Your task to perform on an android device: open app "The Home Depot" Image 0: 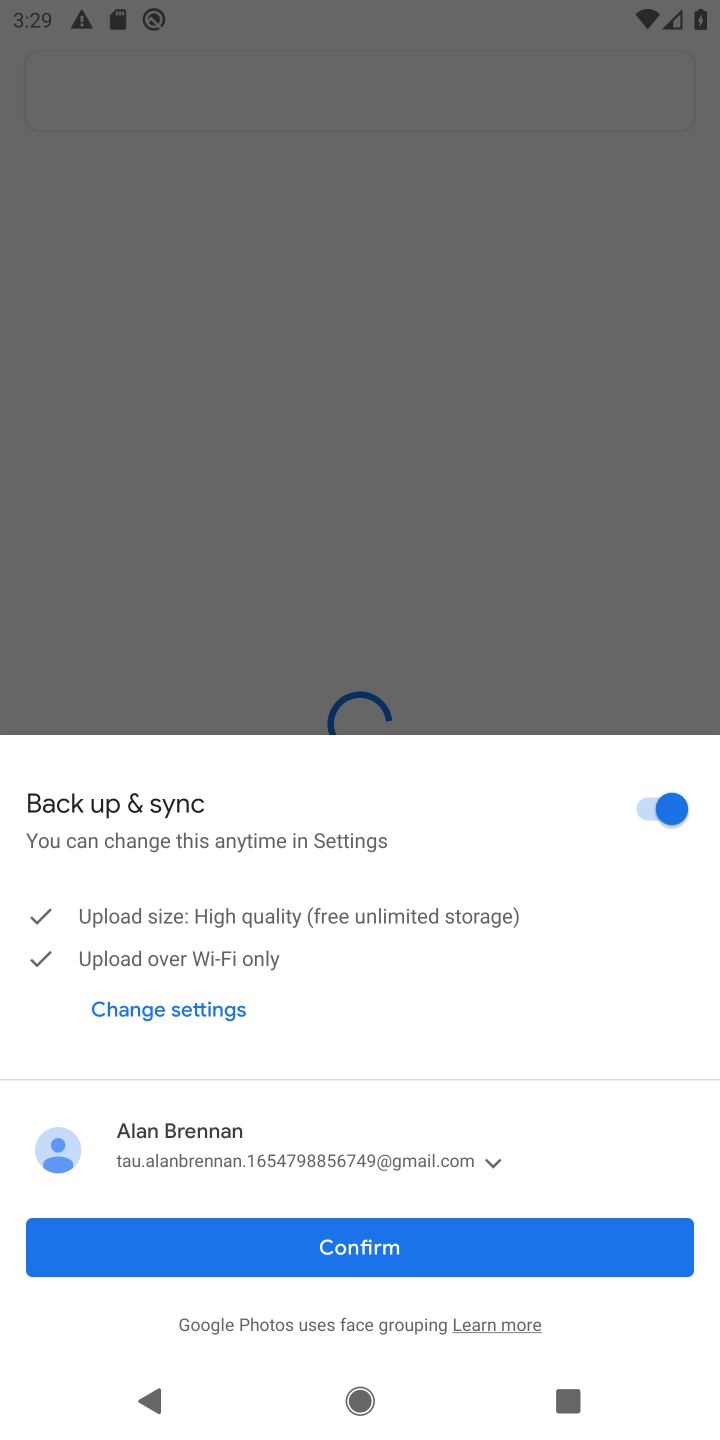
Step 0: press home button
Your task to perform on an android device: open app "The Home Depot" Image 1: 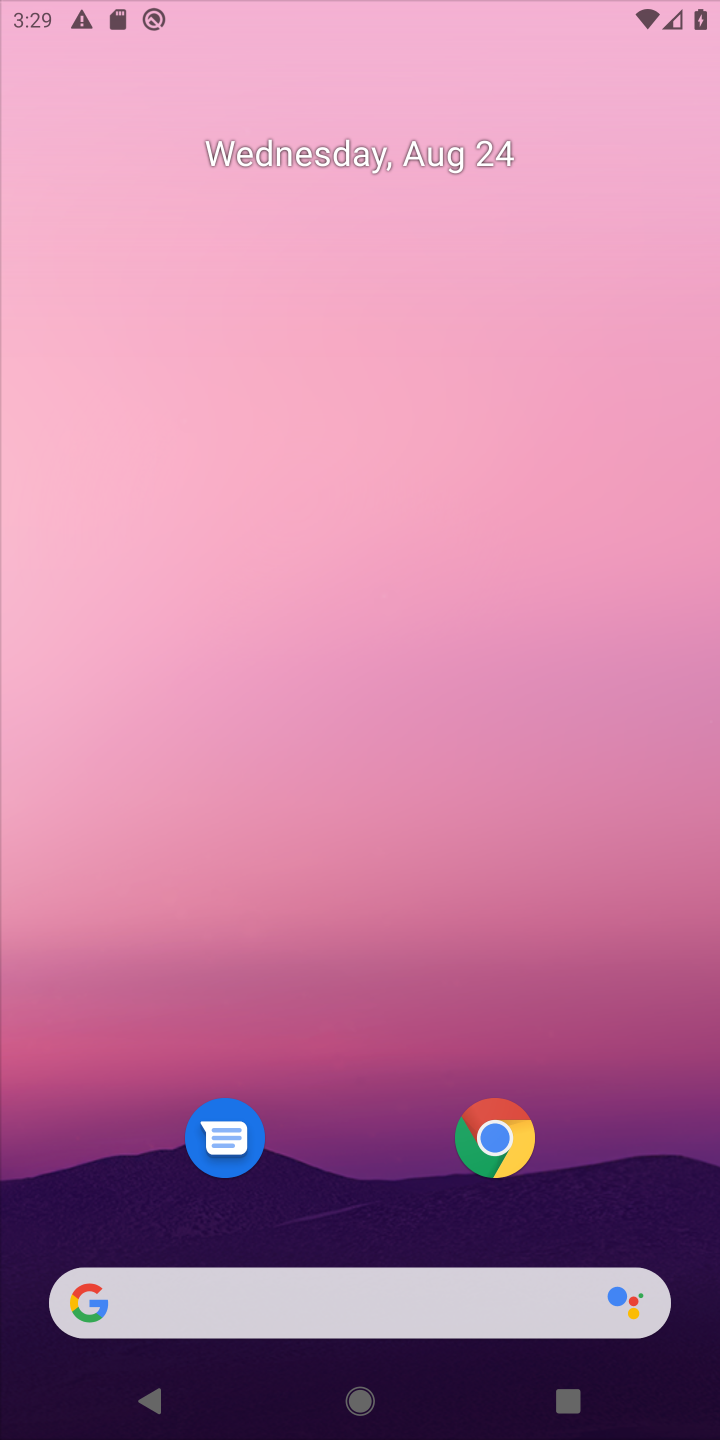
Step 1: press home button
Your task to perform on an android device: open app "The Home Depot" Image 2: 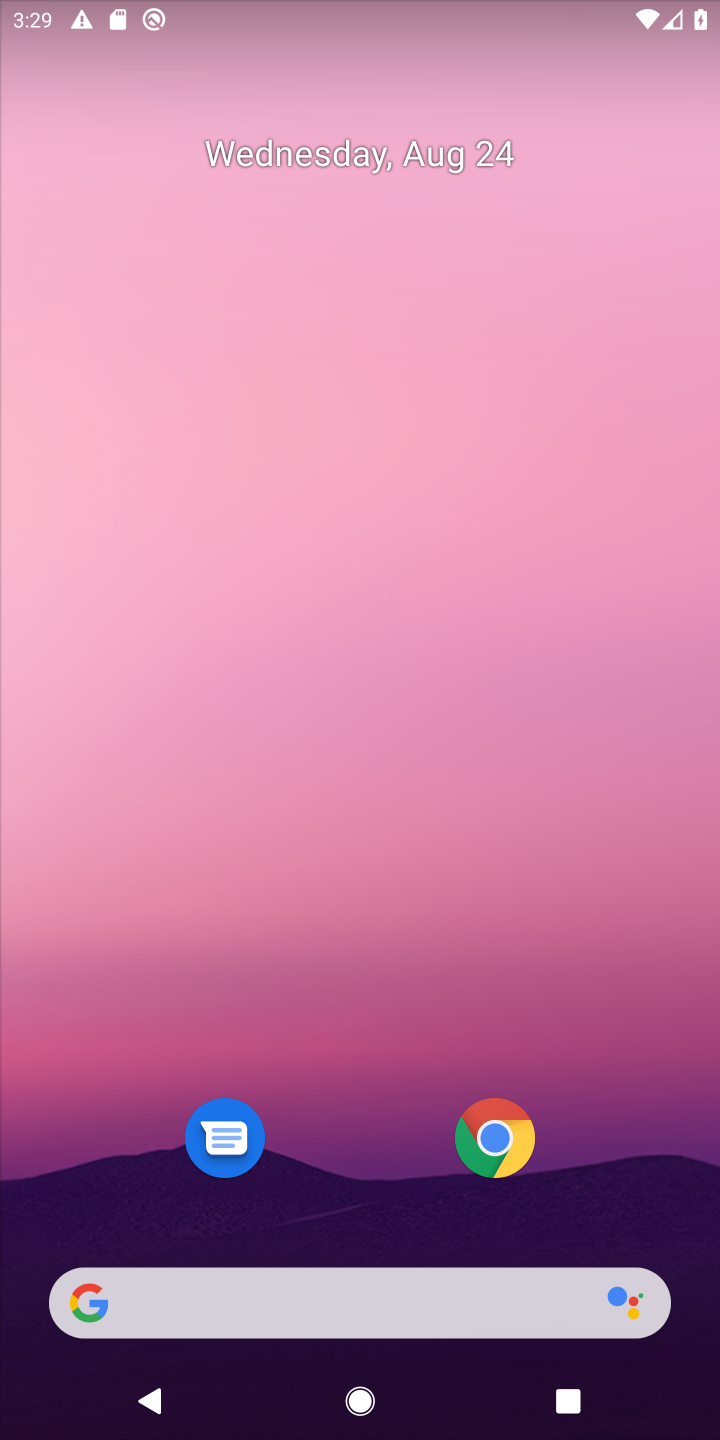
Step 2: drag from (361, 861) to (361, 106)
Your task to perform on an android device: open app "The Home Depot" Image 3: 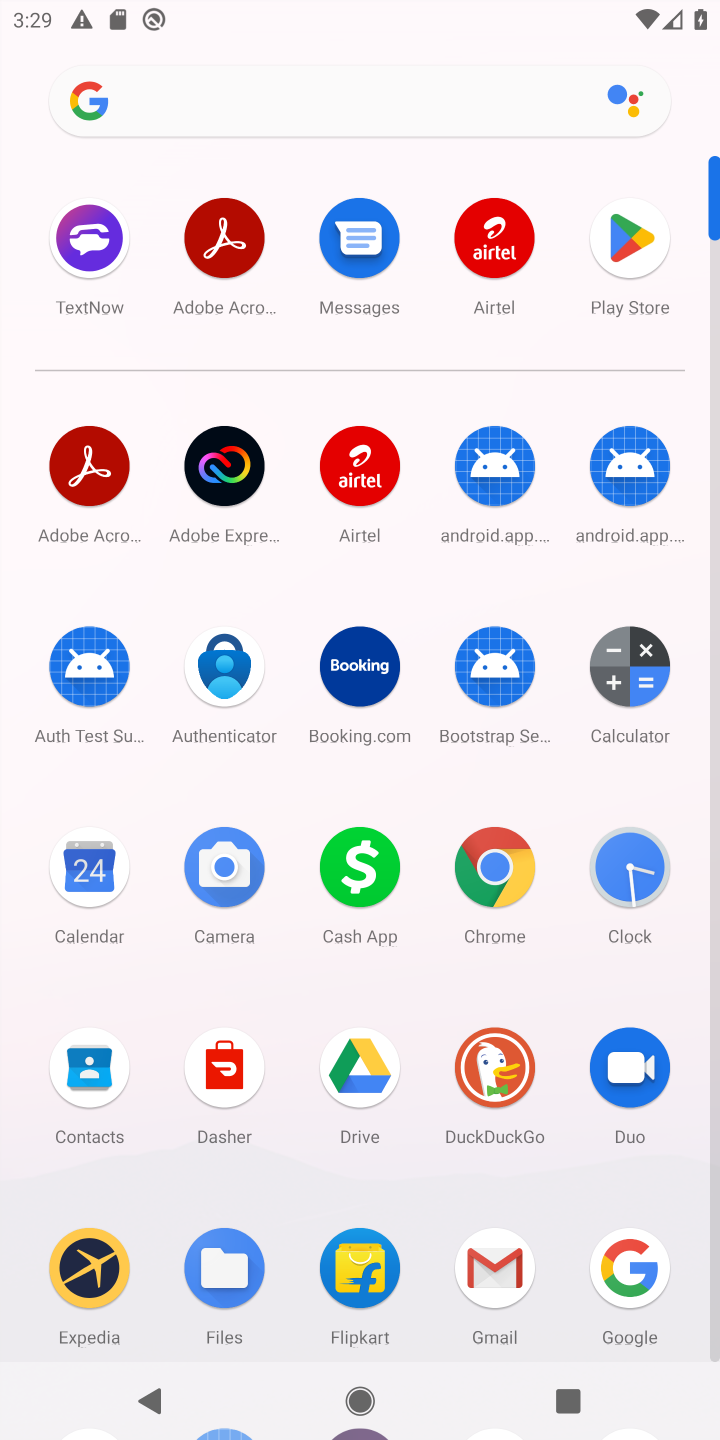
Step 3: click (626, 244)
Your task to perform on an android device: open app "The Home Depot" Image 4: 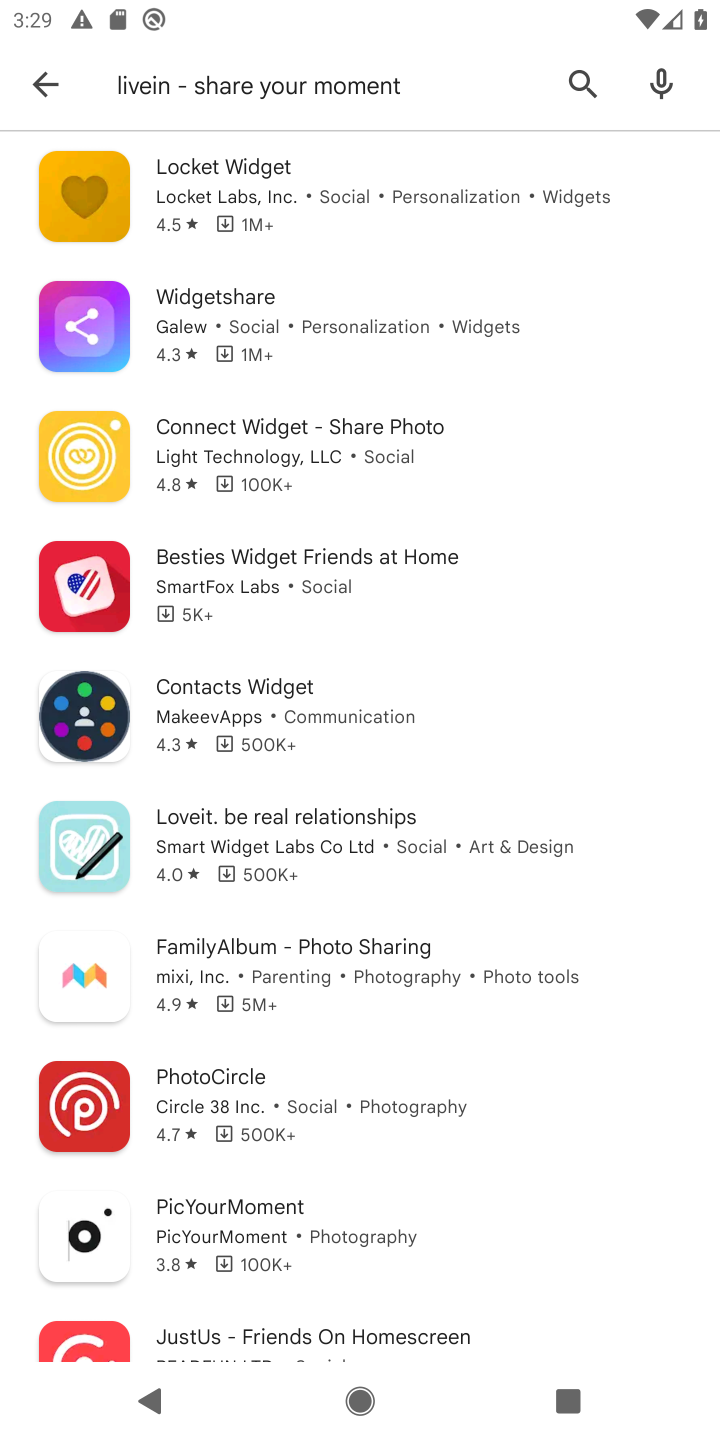
Step 4: click (577, 67)
Your task to perform on an android device: open app "The Home Depot" Image 5: 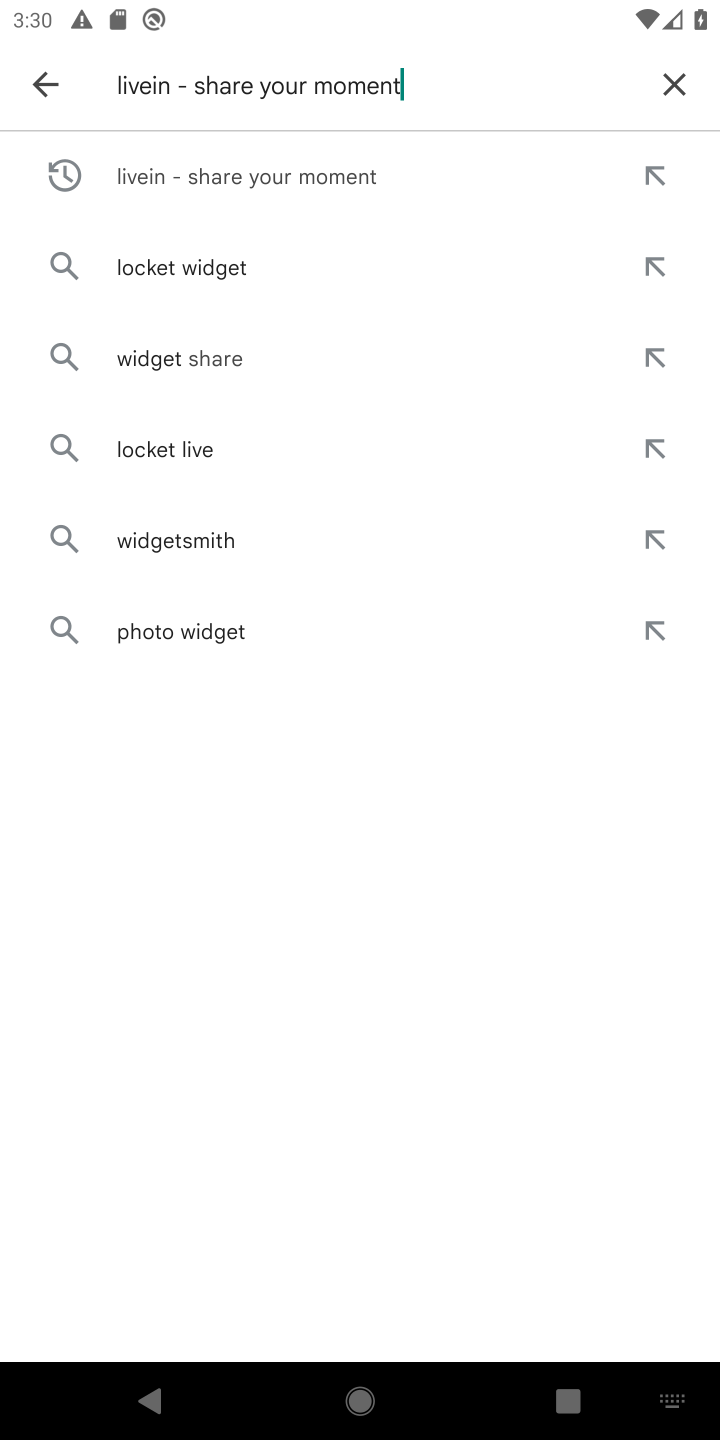
Step 5: click (674, 82)
Your task to perform on an android device: open app "The Home Depot" Image 6: 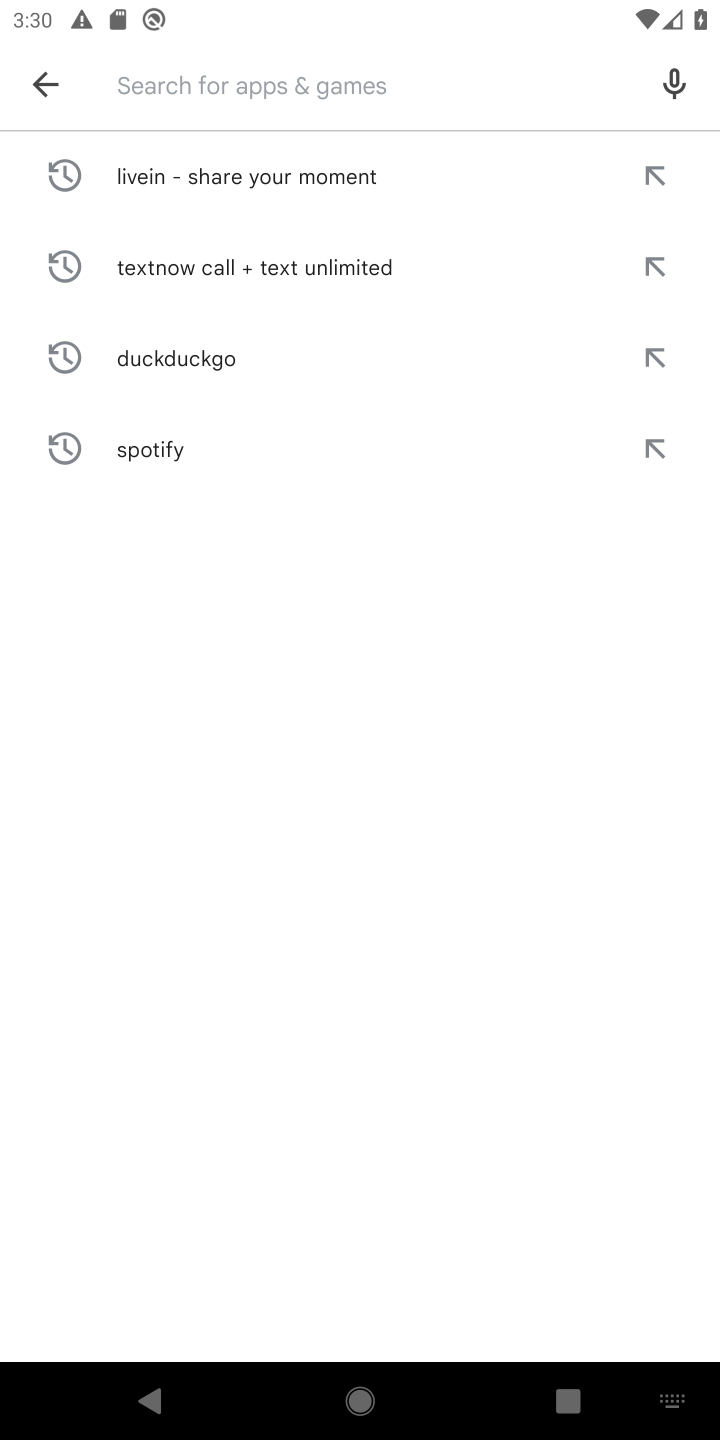
Step 6: type "The Home Depot"
Your task to perform on an android device: open app "The Home Depot" Image 7: 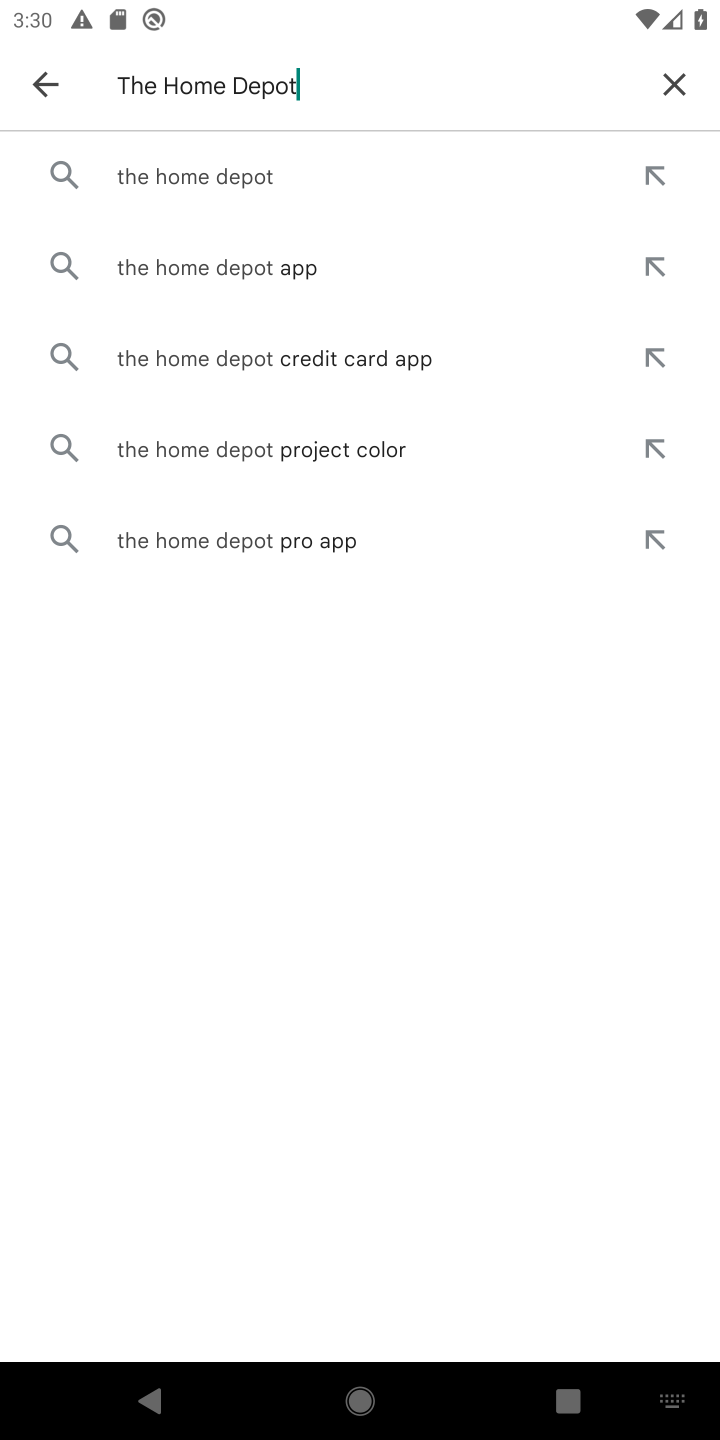
Step 7: click (230, 177)
Your task to perform on an android device: open app "The Home Depot" Image 8: 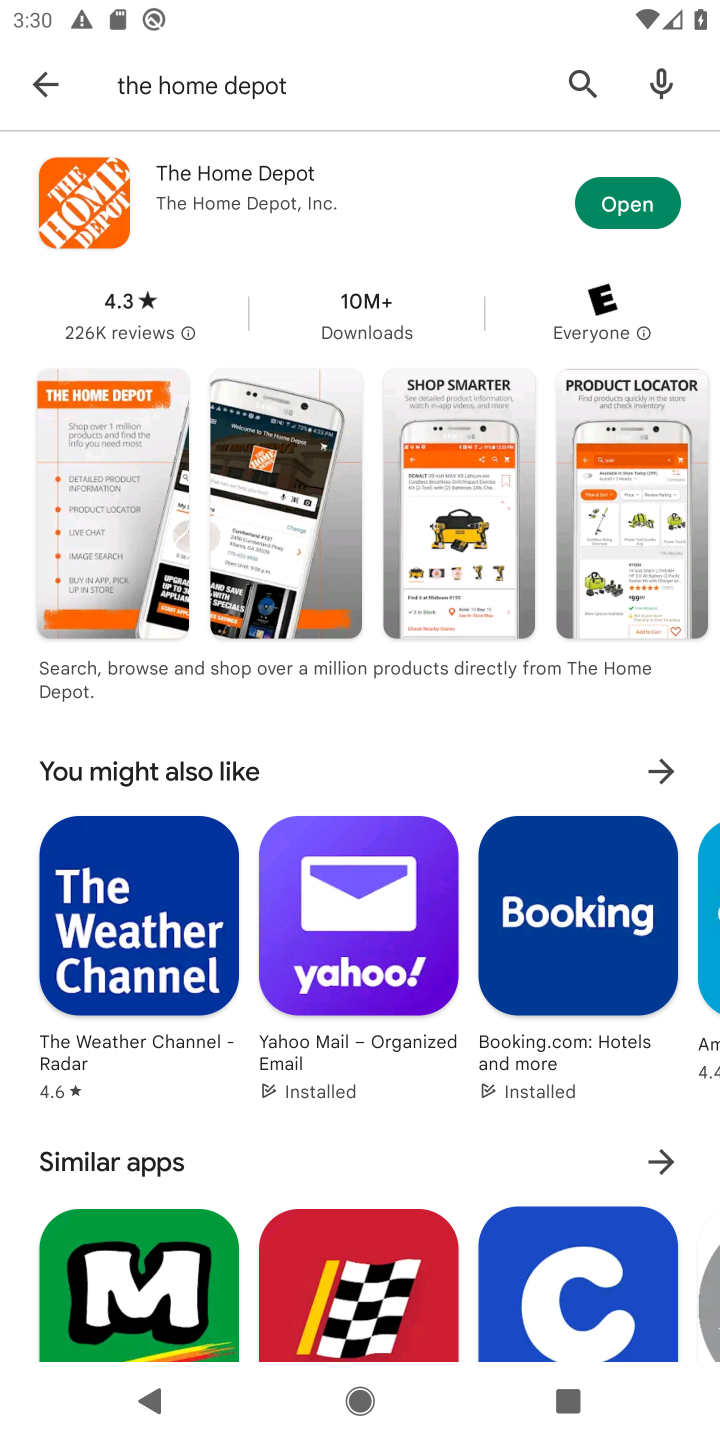
Step 8: click (627, 205)
Your task to perform on an android device: open app "The Home Depot" Image 9: 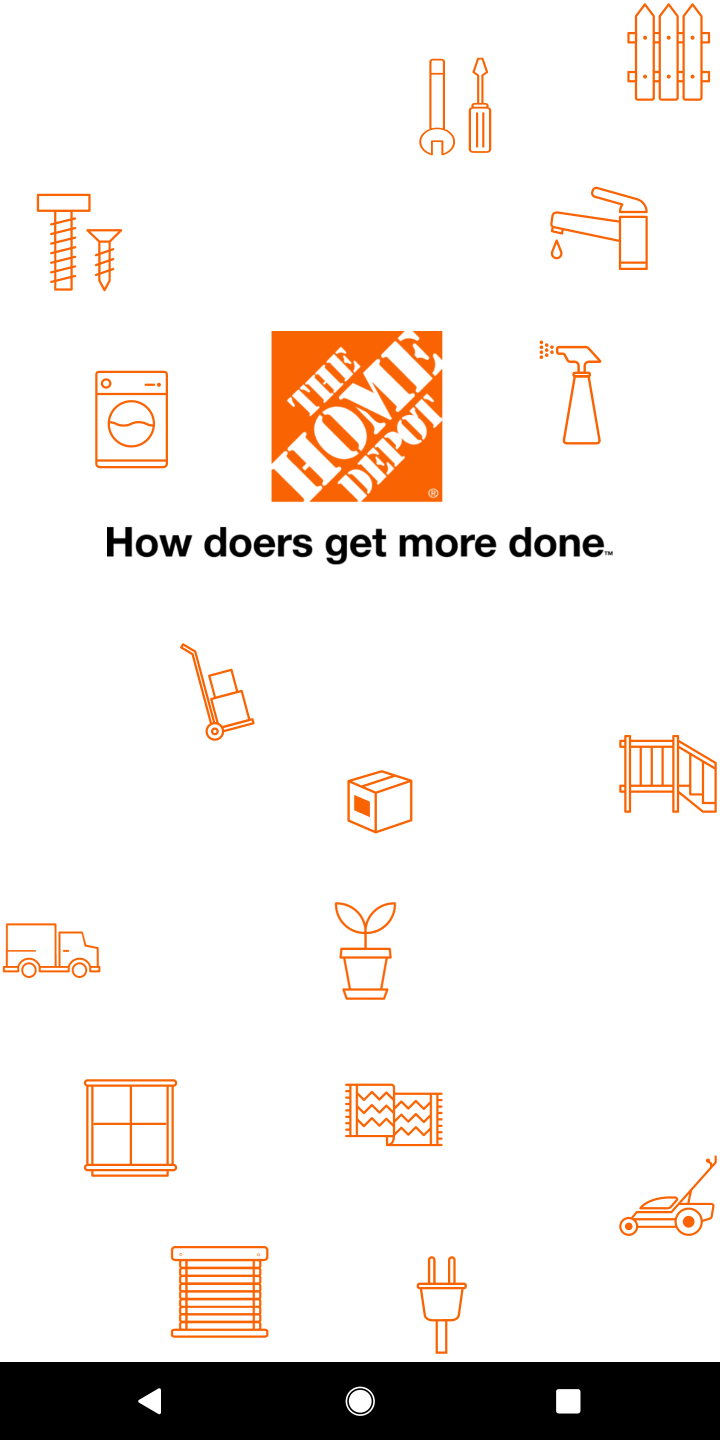
Step 9: task complete